Your task to perform on an android device: change the upload size in google photos Image 0: 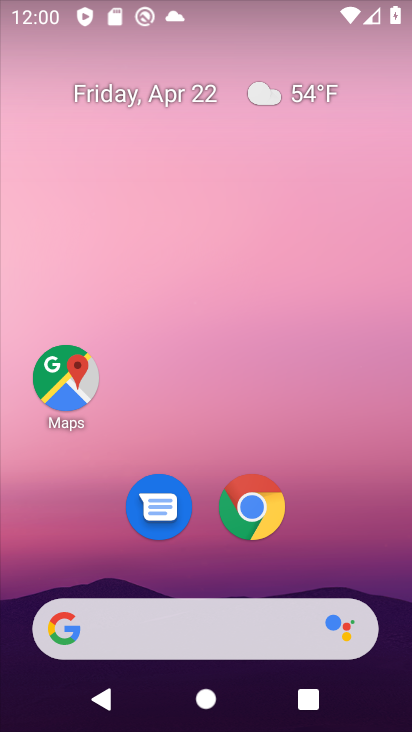
Step 0: click (87, 104)
Your task to perform on an android device: change the upload size in google photos Image 1: 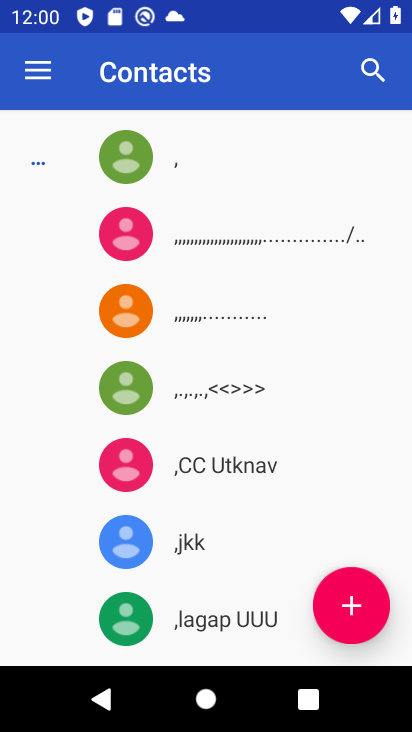
Step 1: press home button
Your task to perform on an android device: change the upload size in google photos Image 2: 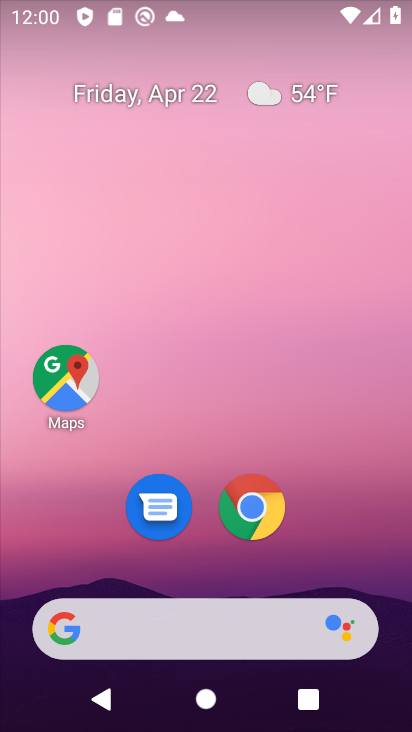
Step 2: drag from (222, 598) to (39, 35)
Your task to perform on an android device: change the upload size in google photos Image 3: 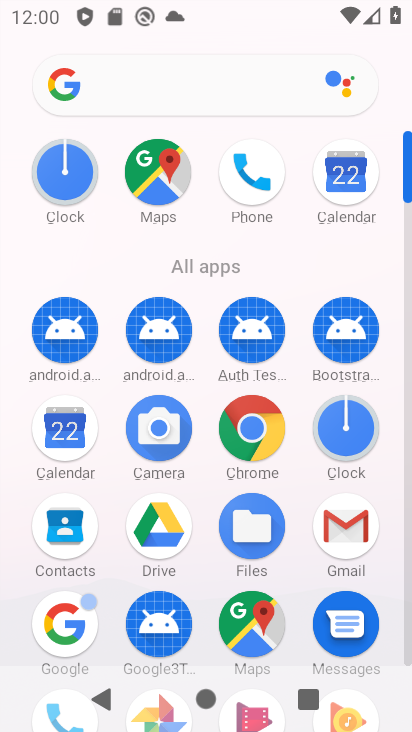
Step 3: drag from (114, 589) to (80, 101)
Your task to perform on an android device: change the upload size in google photos Image 4: 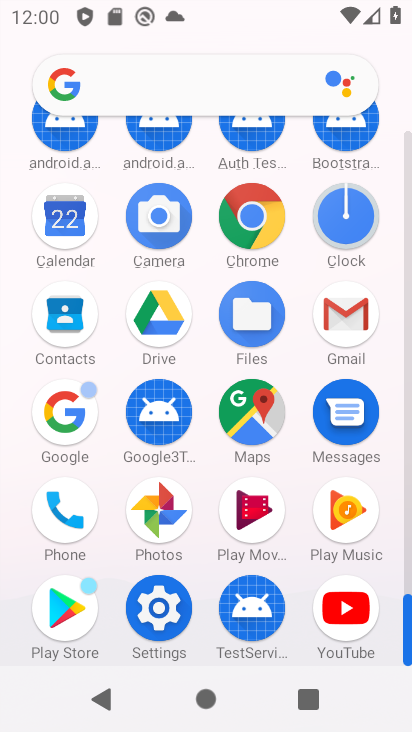
Step 4: click (166, 507)
Your task to perform on an android device: change the upload size in google photos Image 5: 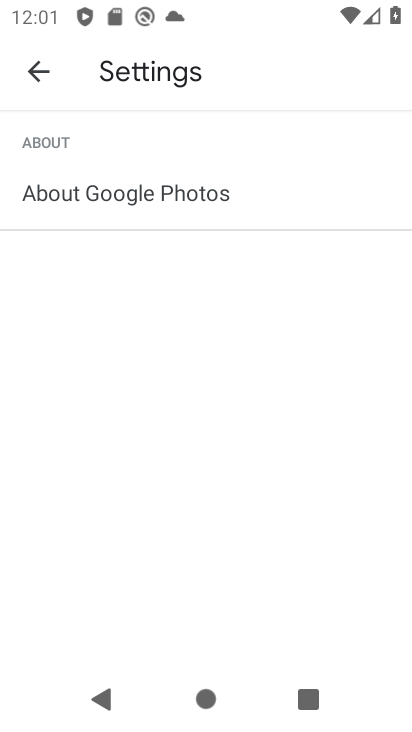
Step 5: click (55, 72)
Your task to perform on an android device: change the upload size in google photos Image 6: 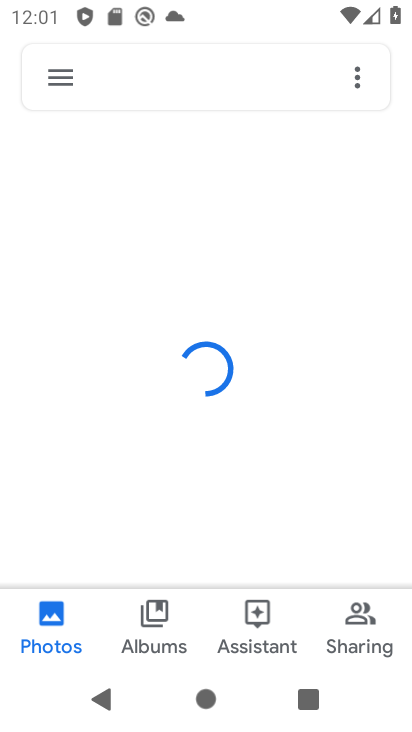
Step 6: click (62, 84)
Your task to perform on an android device: change the upload size in google photos Image 7: 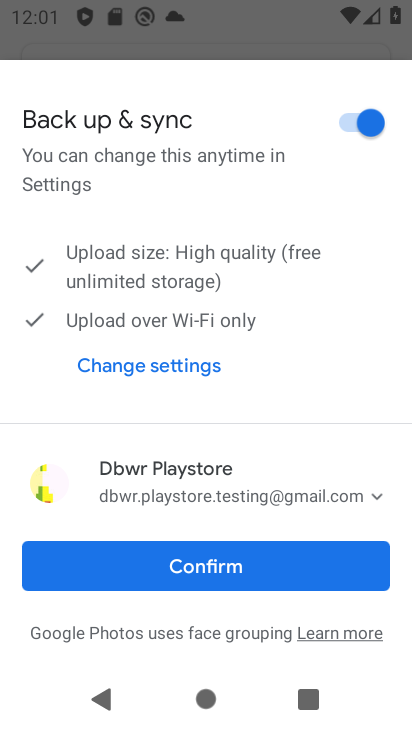
Step 7: click (198, 570)
Your task to perform on an android device: change the upload size in google photos Image 8: 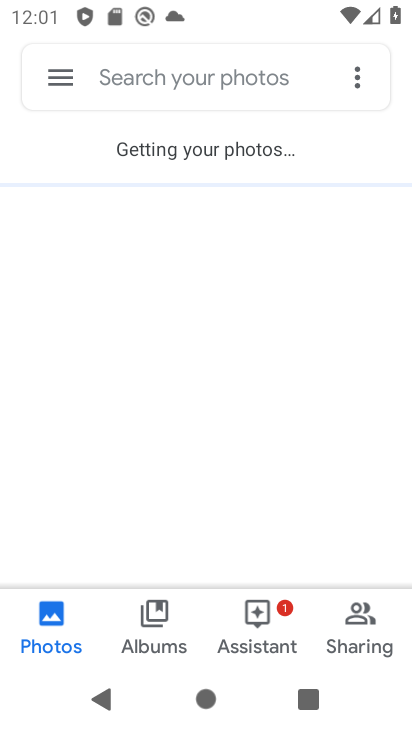
Step 8: click (58, 94)
Your task to perform on an android device: change the upload size in google photos Image 9: 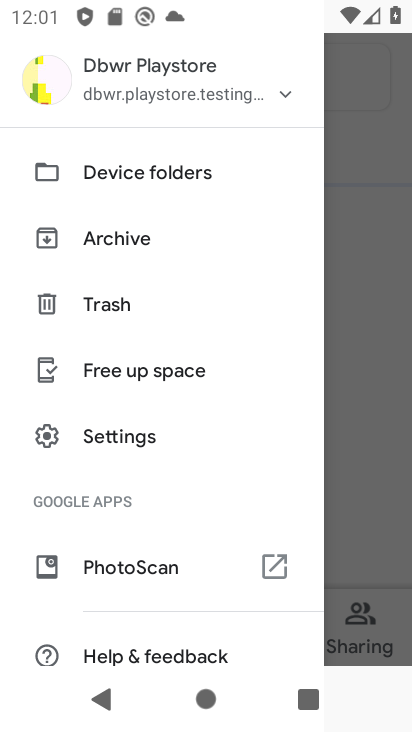
Step 9: drag from (140, 600) to (110, 142)
Your task to perform on an android device: change the upload size in google photos Image 10: 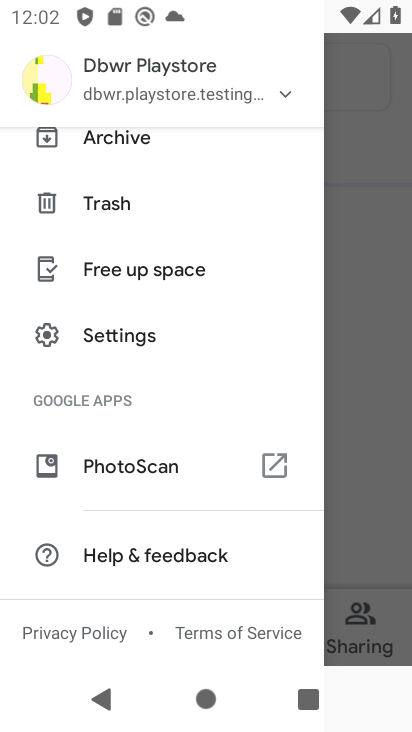
Step 10: click (129, 339)
Your task to perform on an android device: change the upload size in google photos Image 11: 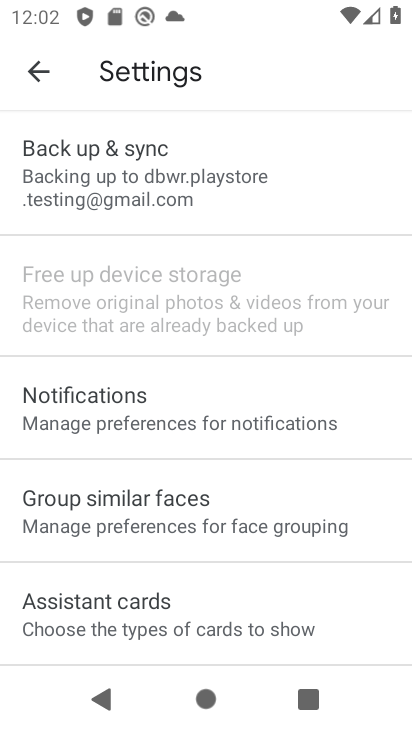
Step 11: click (85, 179)
Your task to perform on an android device: change the upload size in google photos Image 12: 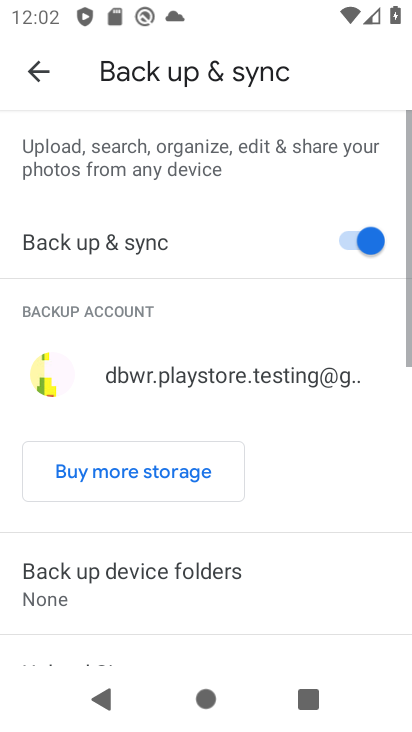
Step 12: drag from (160, 556) to (101, 184)
Your task to perform on an android device: change the upload size in google photos Image 13: 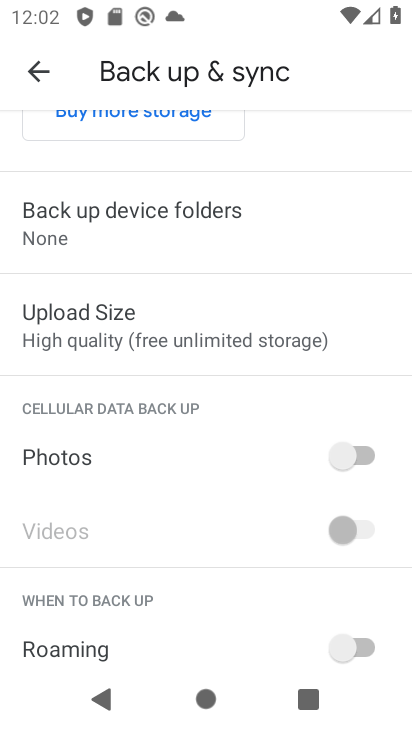
Step 13: click (69, 314)
Your task to perform on an android device: change the upload size in google photos Image 14: 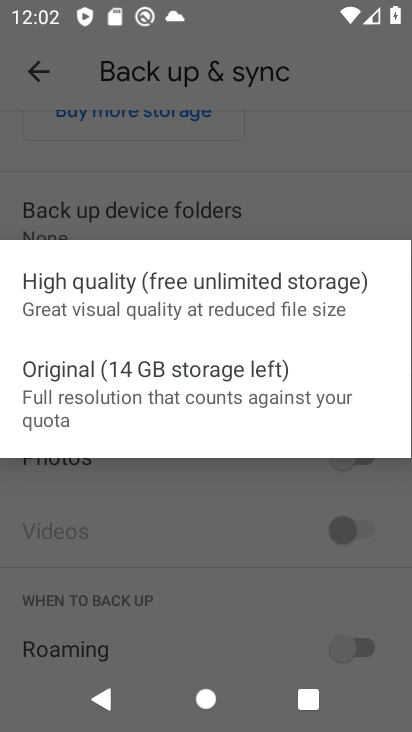
Step 14: click (148, 380)
Your task to perform on an android device: change the upload size in google photos Image 15: 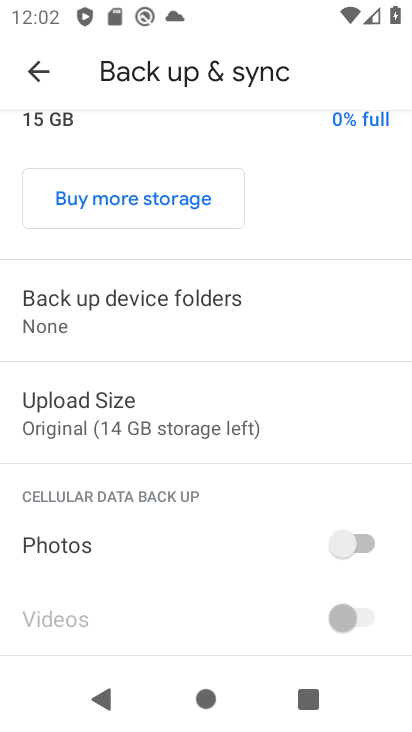
Step 15: task complete